Your task to perform on an android device: add a contact in the contacts app Image 0: 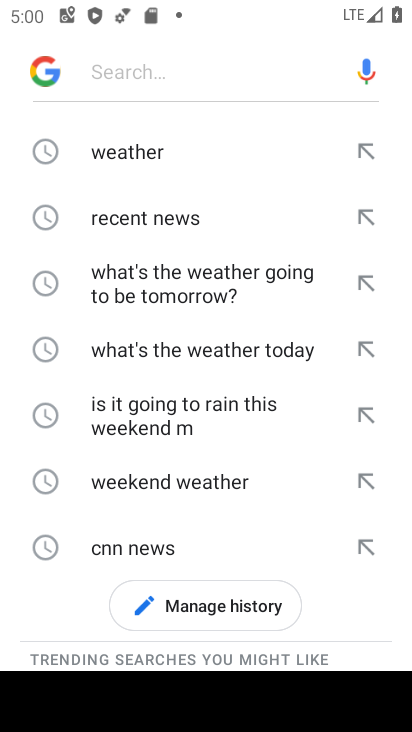
Step 0: press home button
Your task to perform on an android device: add a contact in the contacts app Image 1: 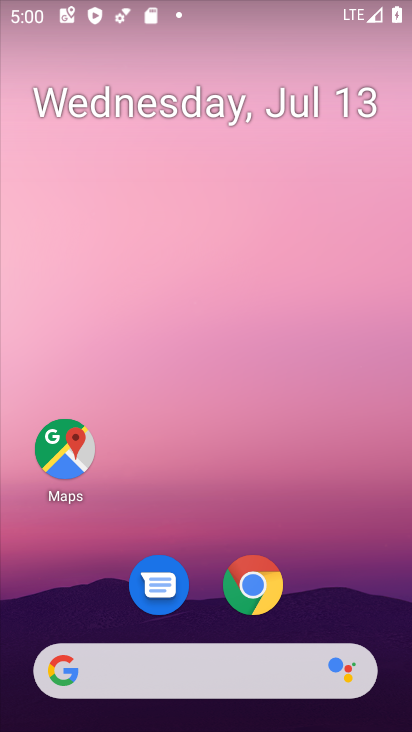
Step 1: drag from (343, 558) to (323, 66)
Your task to perform on an android device: add a contact in the contacts app Image 2: 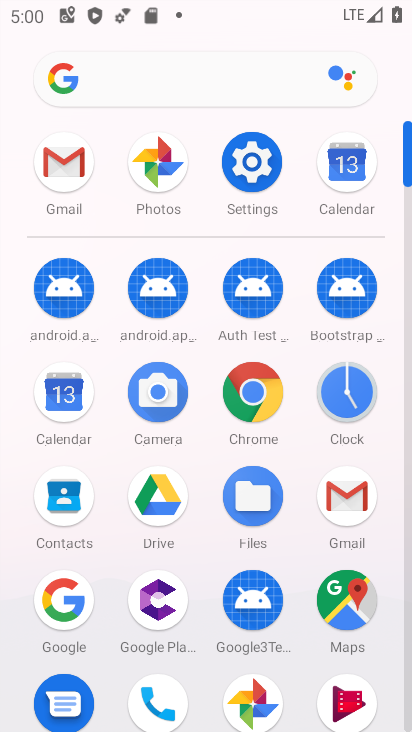
Step 2: click (69, 496)
Your task to perform on an android device: add a contact in the contacts app Image 3: 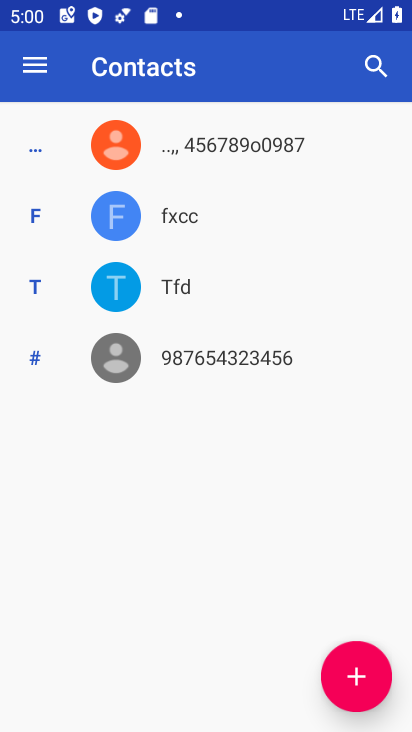
Step 3: click (353, 687)
Your task to perform on an android device: add a contact in the contacts app Image 4: 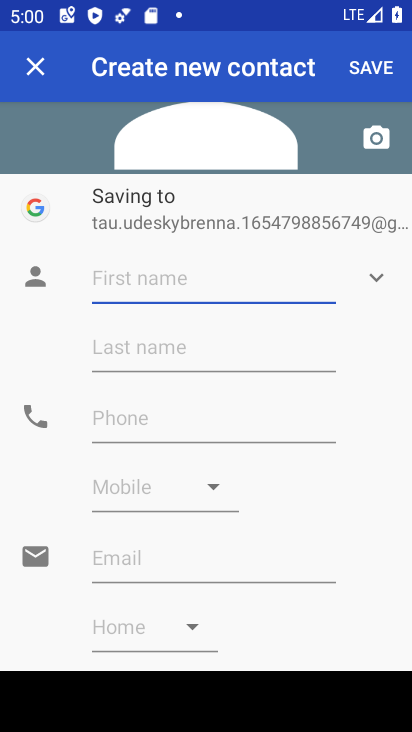
Step 4: type "Rishi"
Your task to perform on an android device: add a contact in the contacts app Image 5: 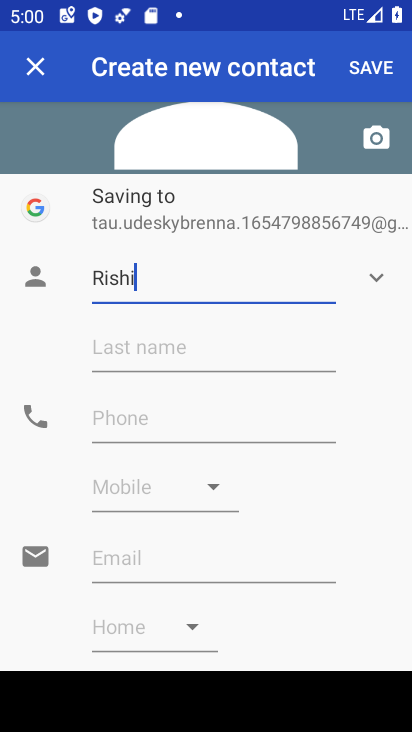
Step 5: click (201, 423)
Your task to perform on an android device: add a contact in the contacts app Image 6: 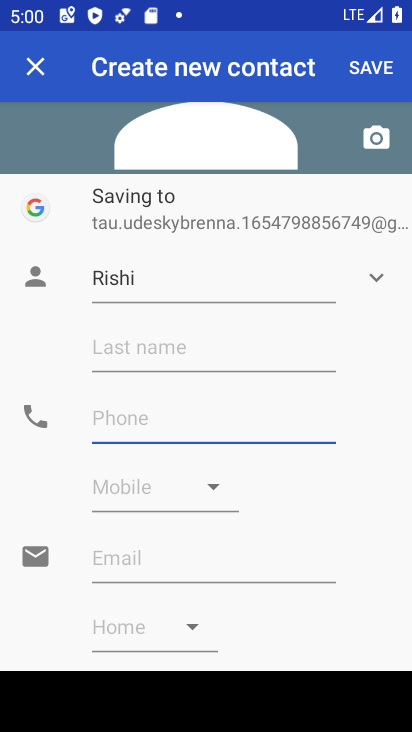
Step 6: type "999888777666555"
Your task to perform on an android device: add a contact in the contacts app Image 7: 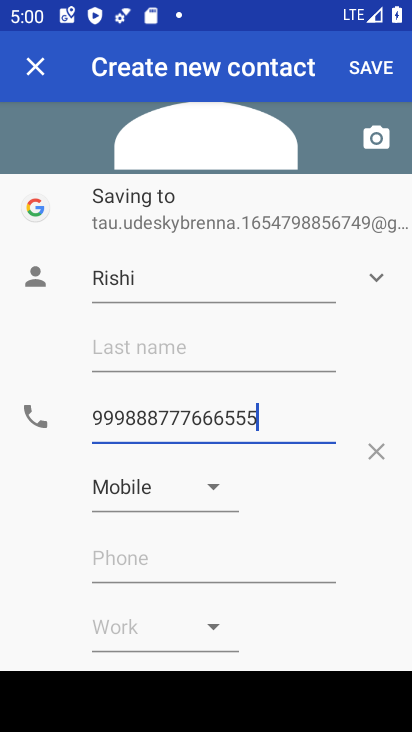
Step 7: click (373, 72)
Your task to perform on an android device: add a contact in the contacts app Image 8: 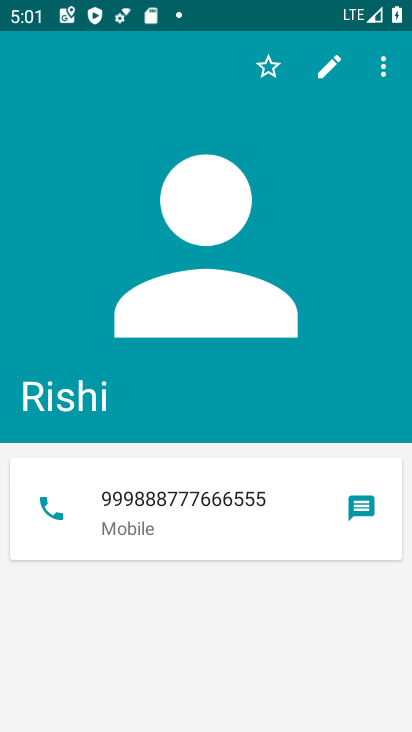
Step 8: task complete